Your task to perform on an android device: turn on the 24-hour format for clock Image 0: 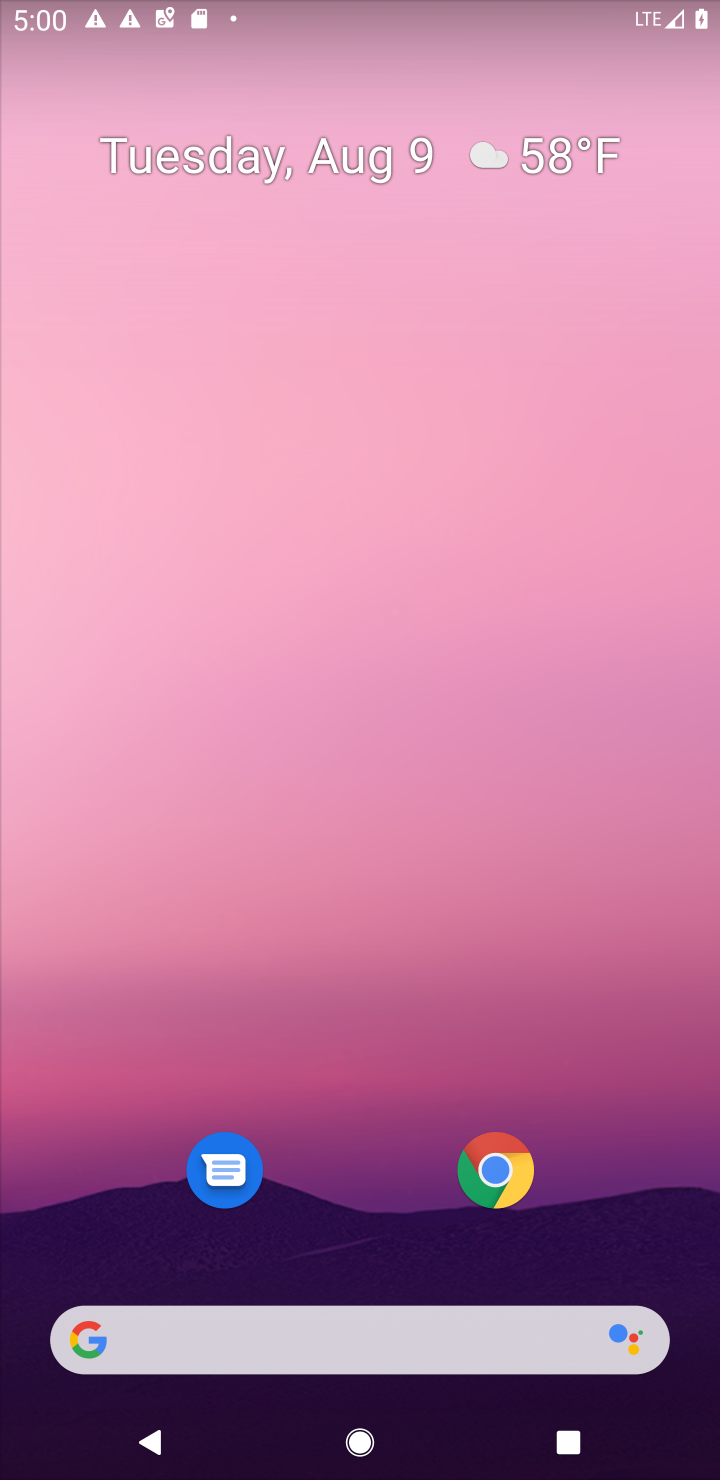
Step 0: press home button
Your task to perform on an android device: turn on the 24-hour format for clock Image 1: 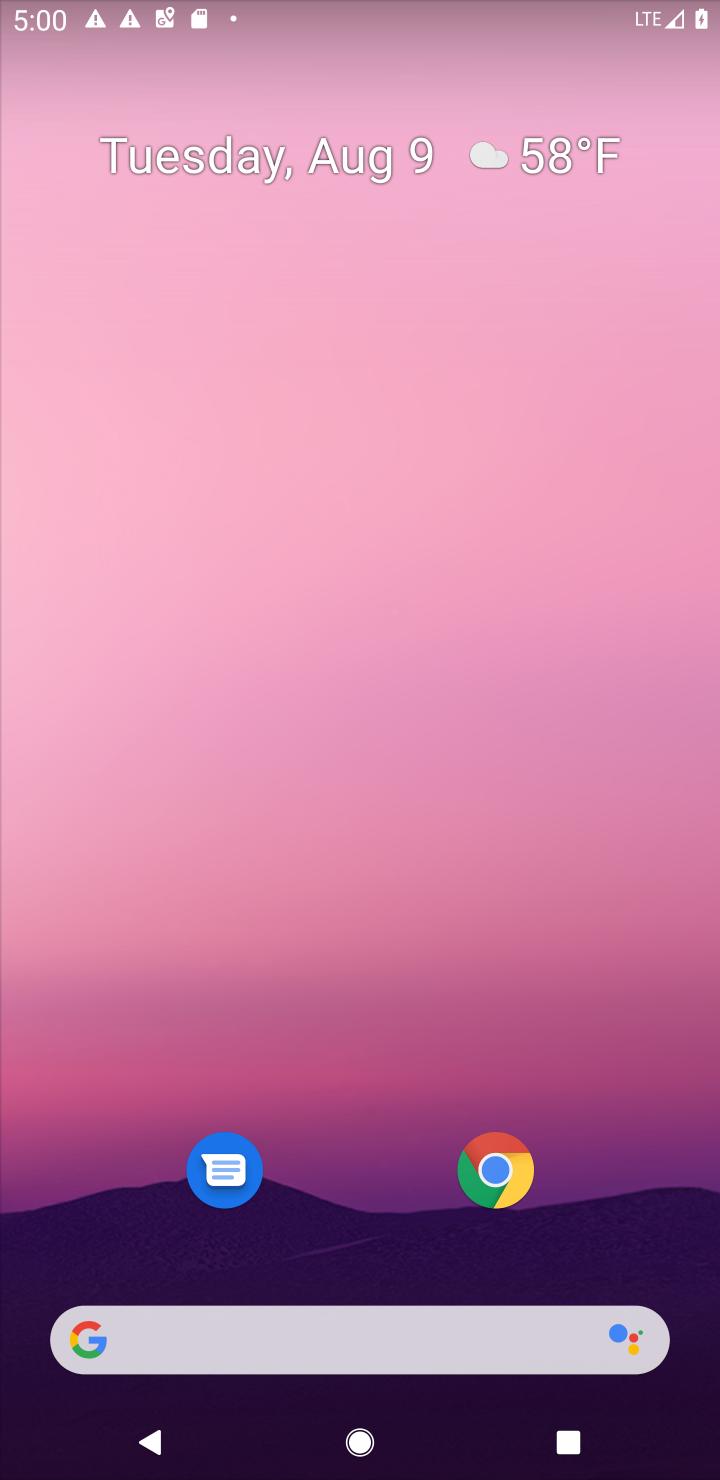
Step 1: drag from (426, 1167) to (354, 46)
Your task to perform on an android device: turn on the 24-hour format for clock Image 2: 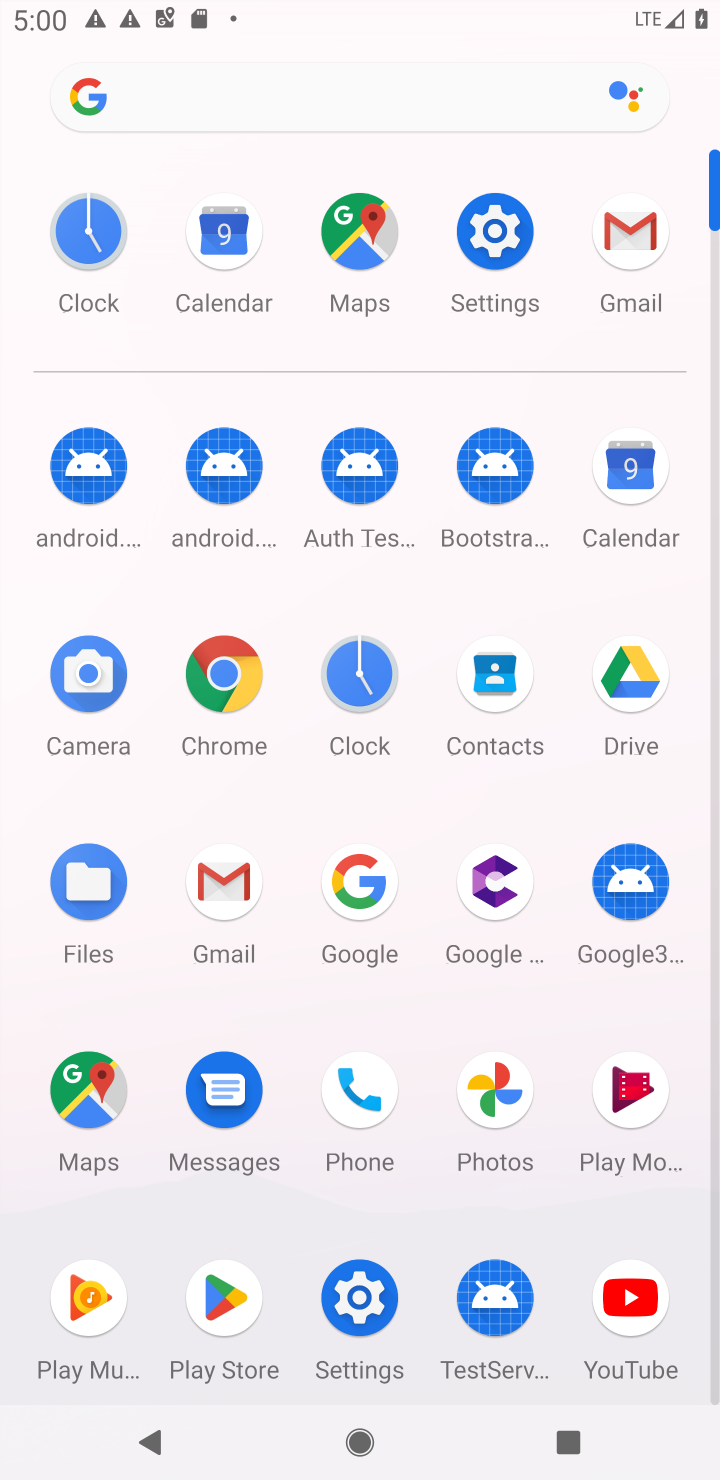
Step 2: click (375, 682)
Your task to perform on an android device: turn on the 24-hour format for clock Image 3: 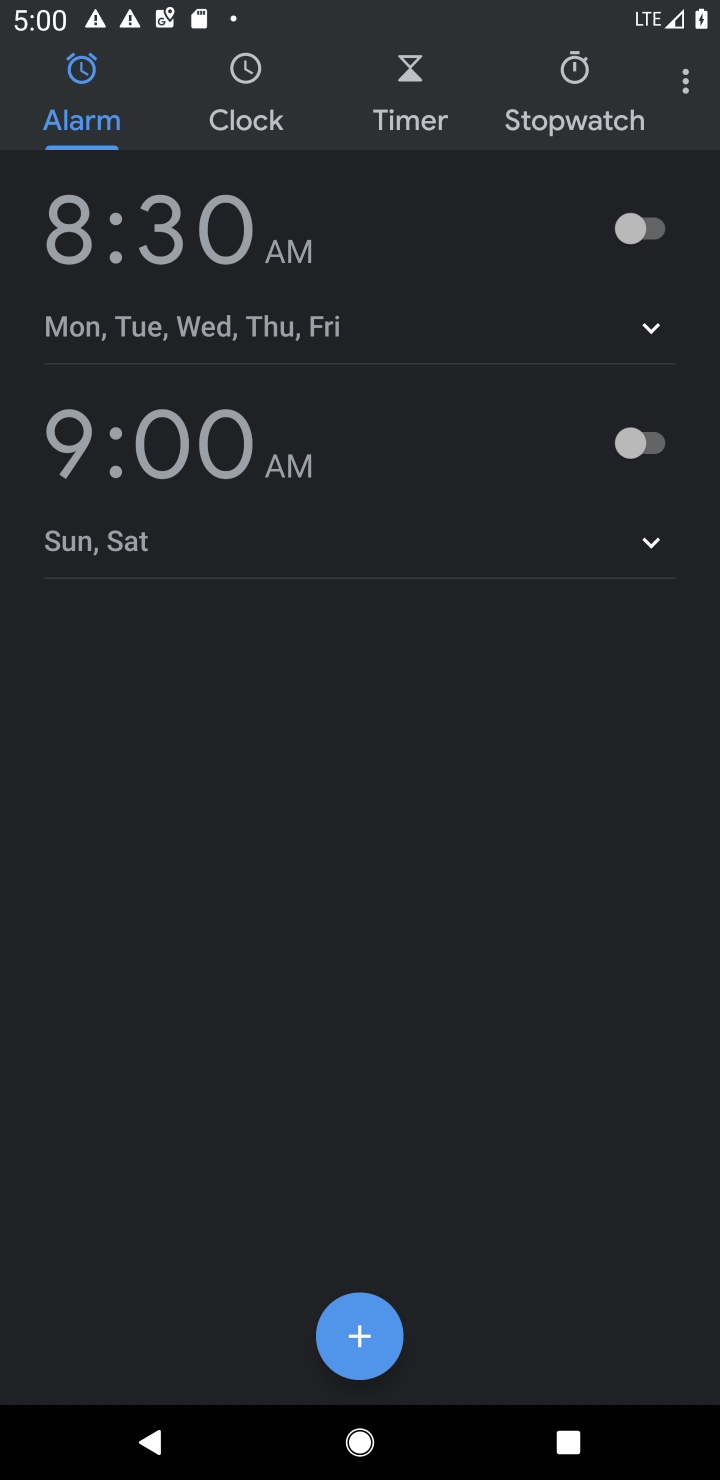
Step 3: click (681, 101)
Your task to perform on an android device: turn on the 24-hour format for clock Image 4: 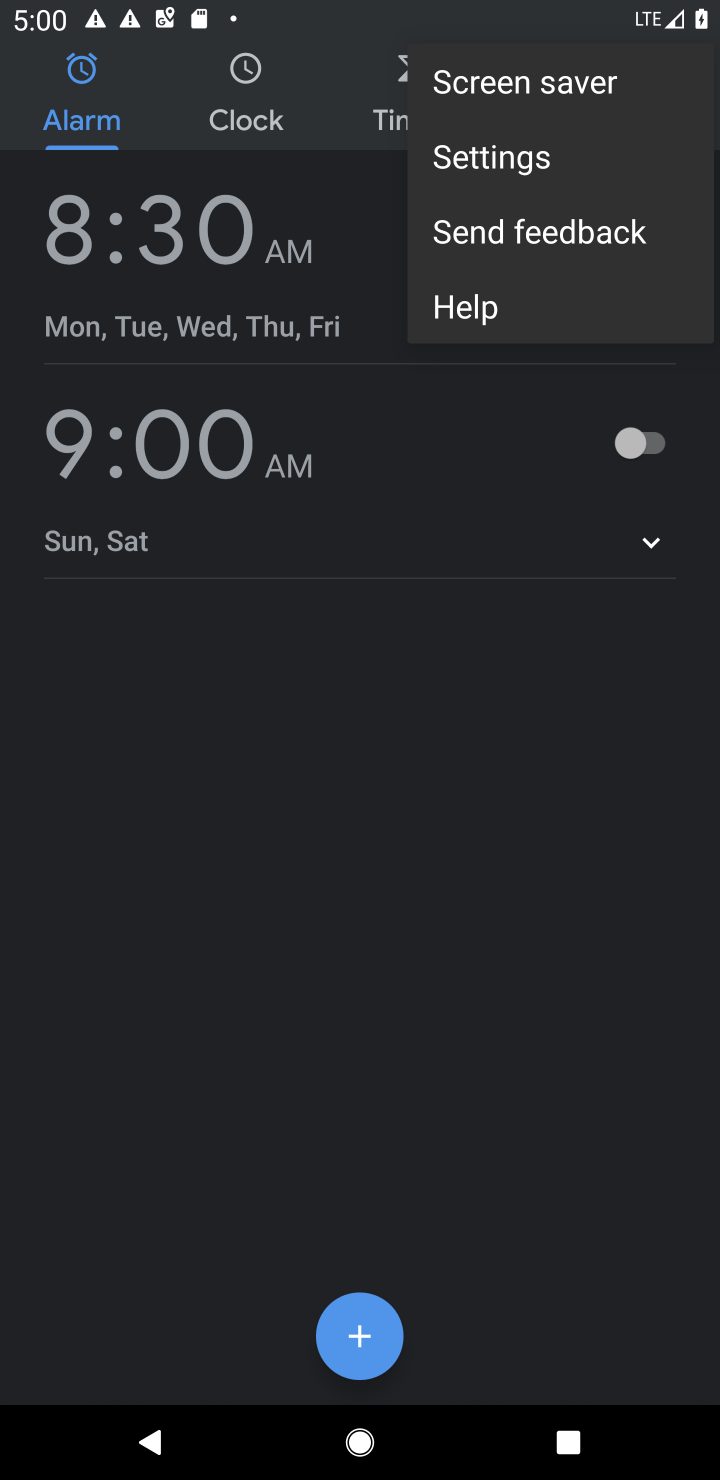
Step 4: click (469, 163)
Your task to perform on an android device: turn on the 24-hour format for clock Image 5: 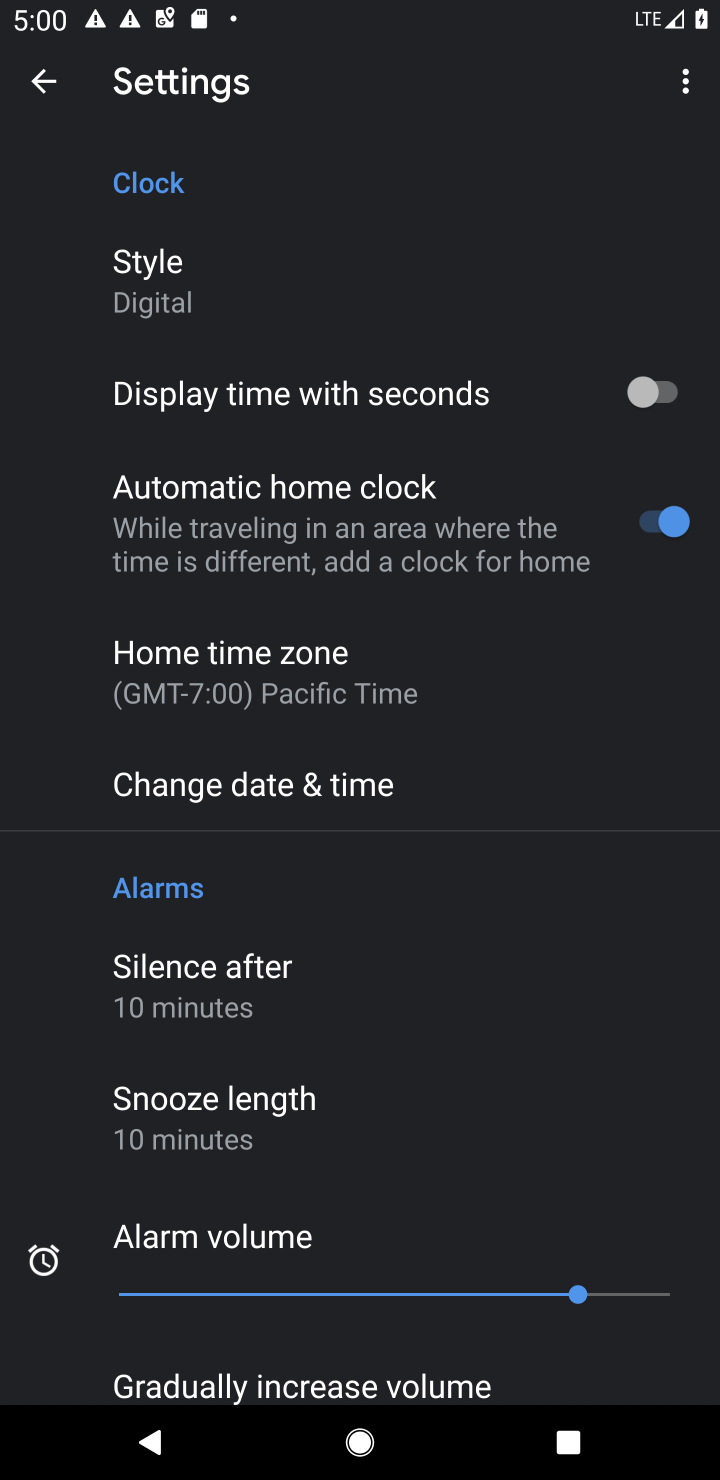
Step 5: drag from (363, 902) to (377, 234)
Your task to perform on an android device: turn on the 24-hour format for clock Image 6: 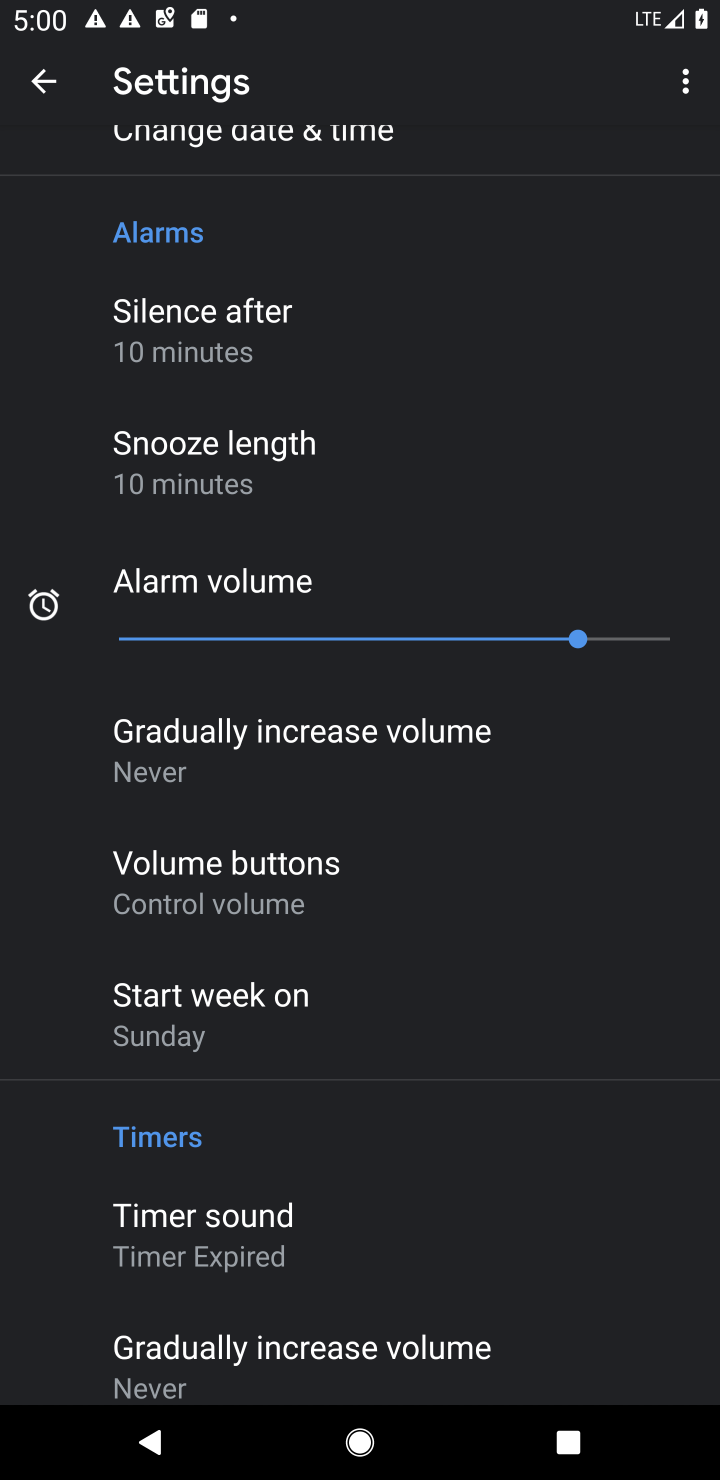
Step 6: drag from (355, 208) to (370, 462)
Your task to perform on an android device: turn on the 24-hour format for clock Image 7: 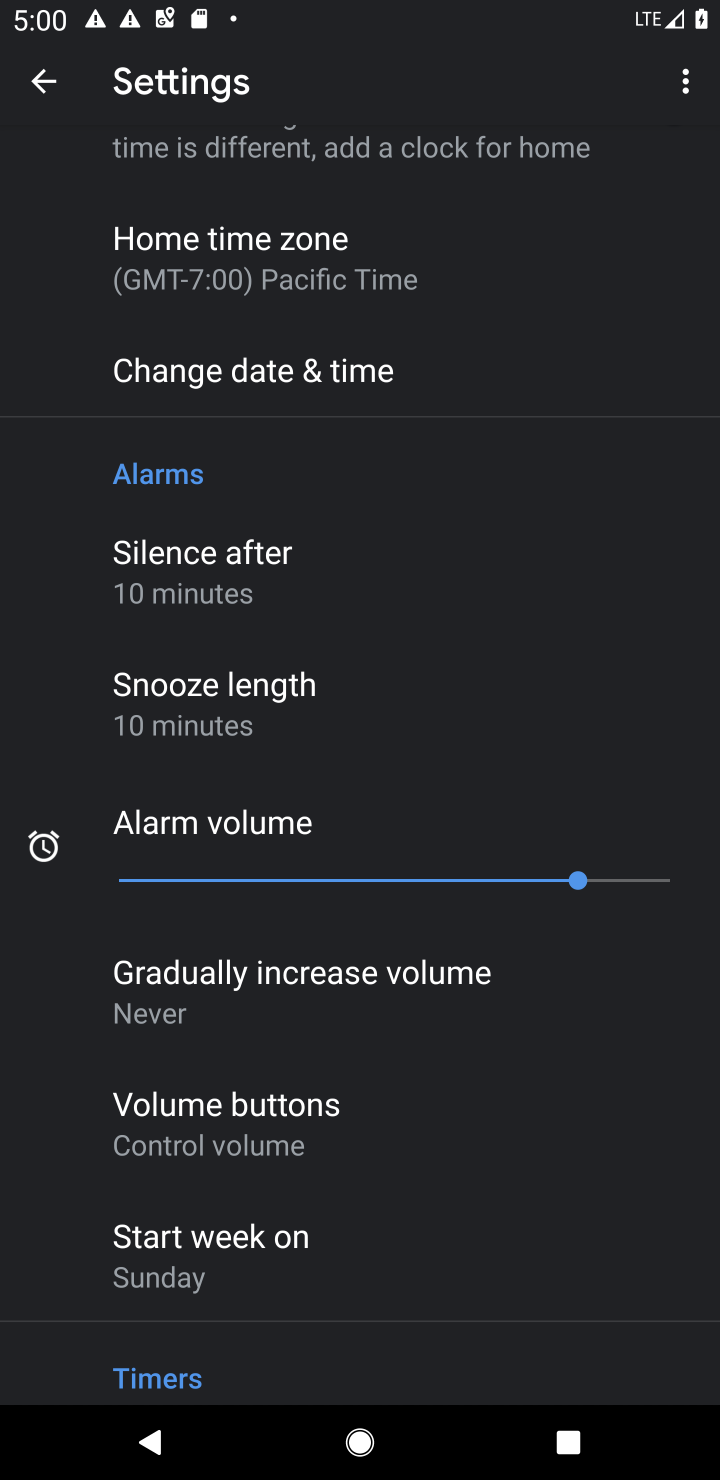
Step 7: click (279, 382)
Your task to perform on an android device: turn on the 24-hour format for clock Image 8: 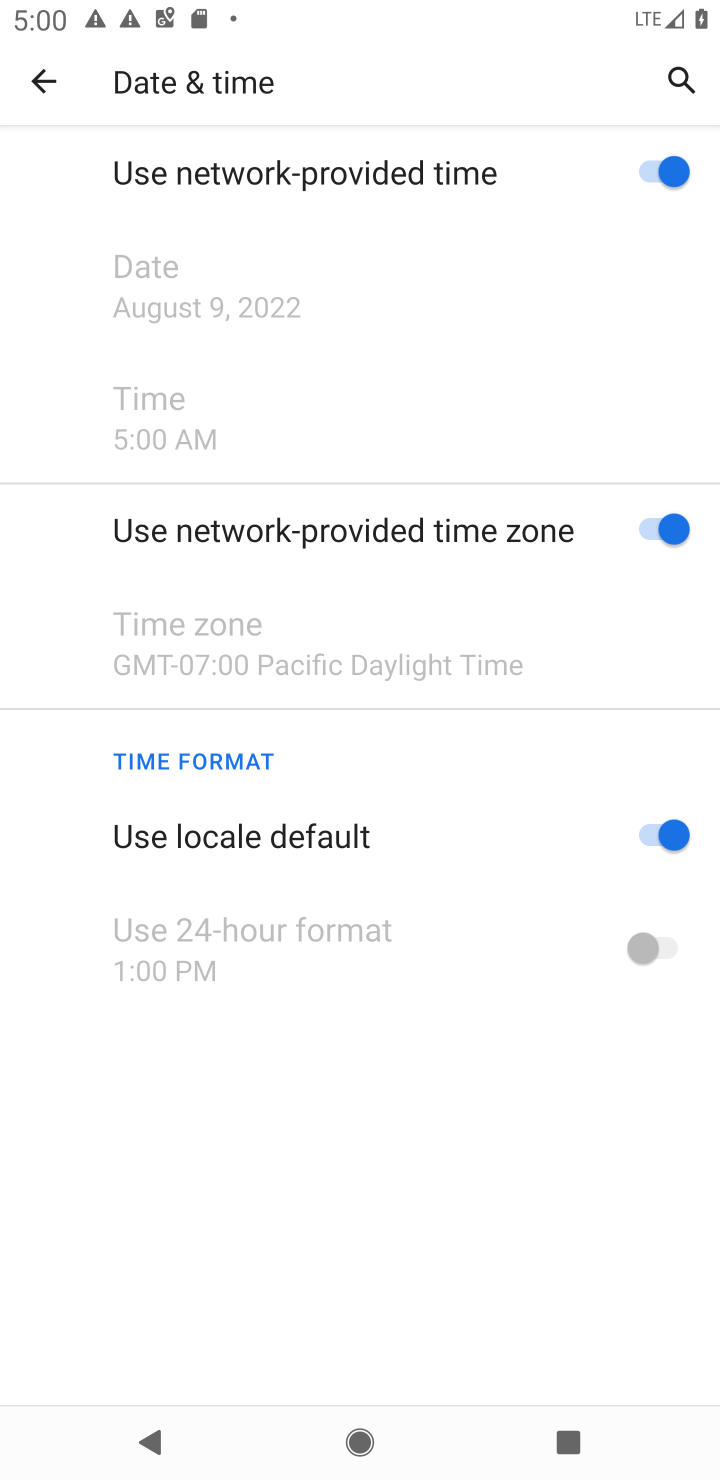
Step 8: click (651, 953)
Your task to perform on an android device: turn on the 24-hour format for clock Image 9: 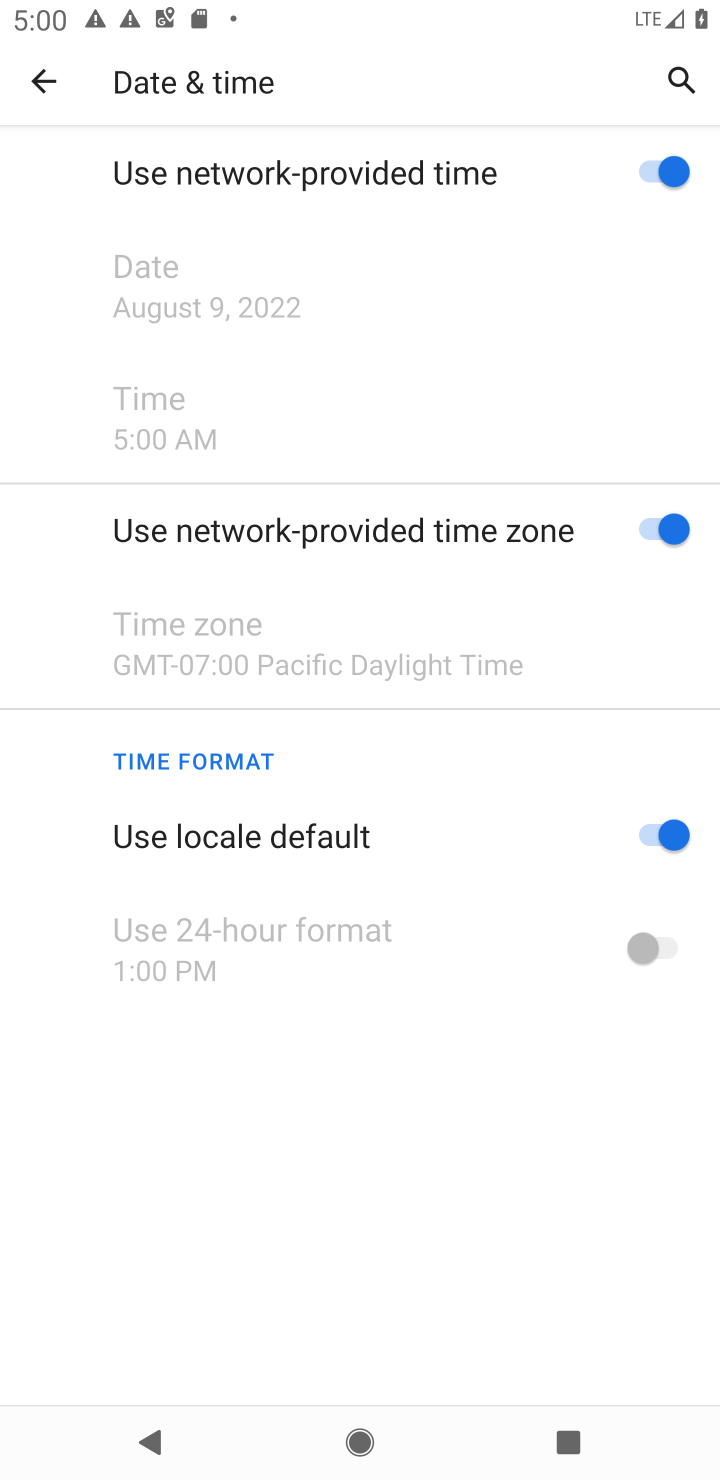
Step 9: click (674, 843)
Your task to perform on an android device: turn on the 24-hour format for clock Image 10: 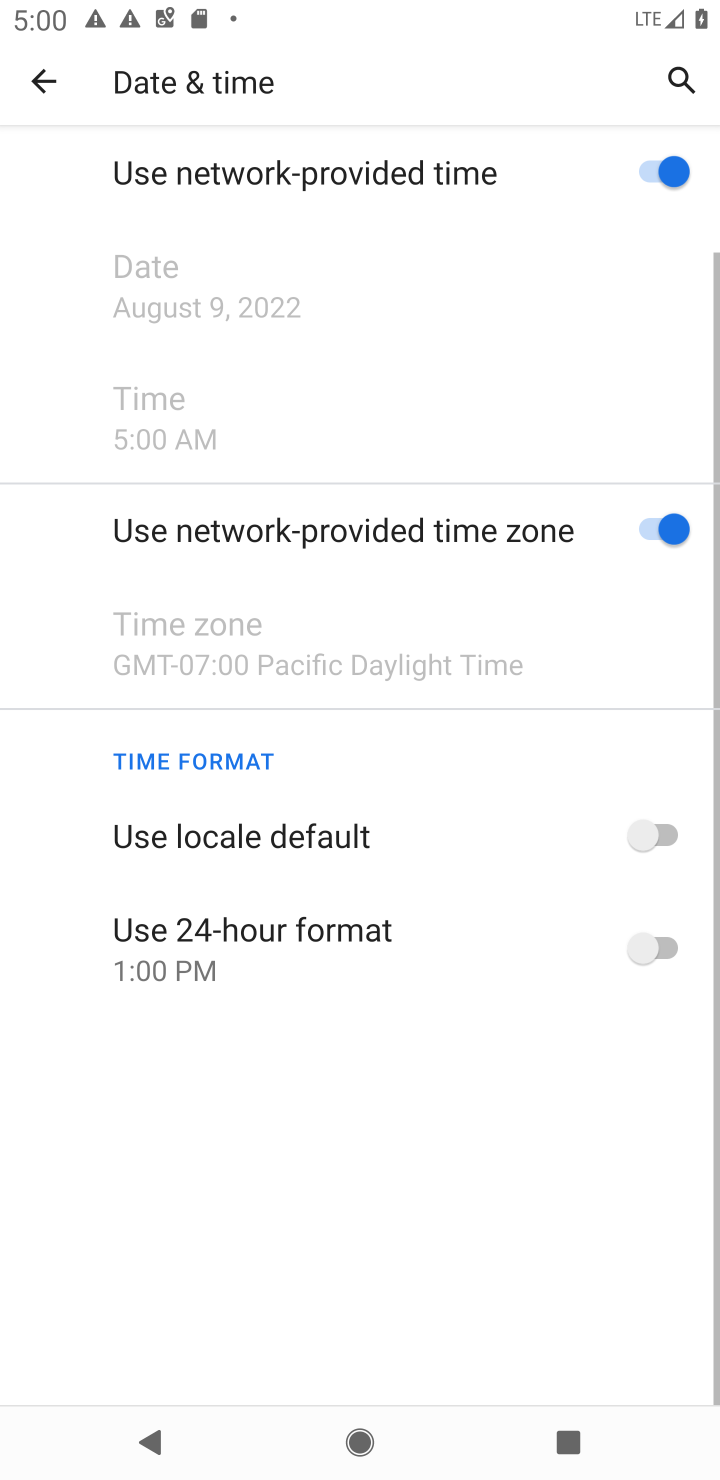
Step 10: click (643, 946)
Your task to perform on an android device: turn on the 24-hour format for clock Image 11: 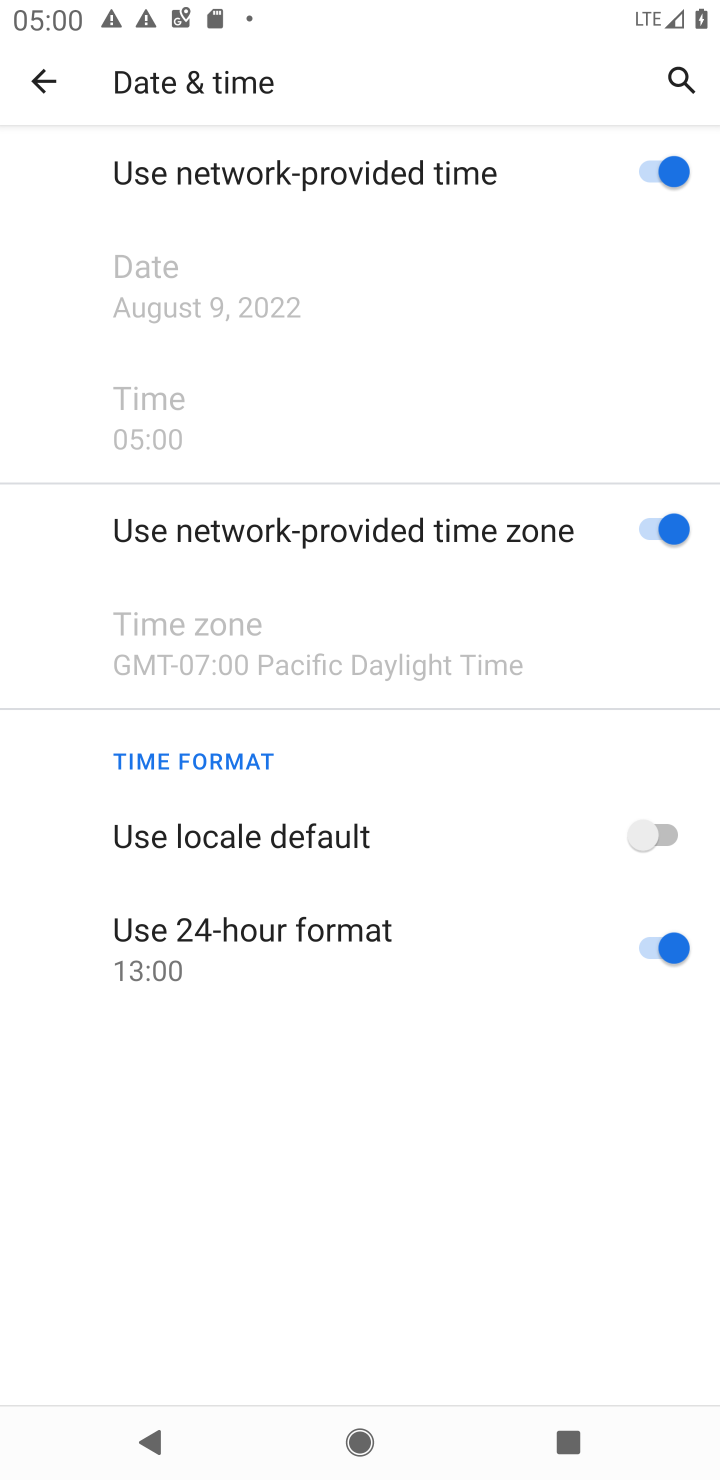
Step 11: task complete